Your task to perform on an android device: Open eBay Image 0: 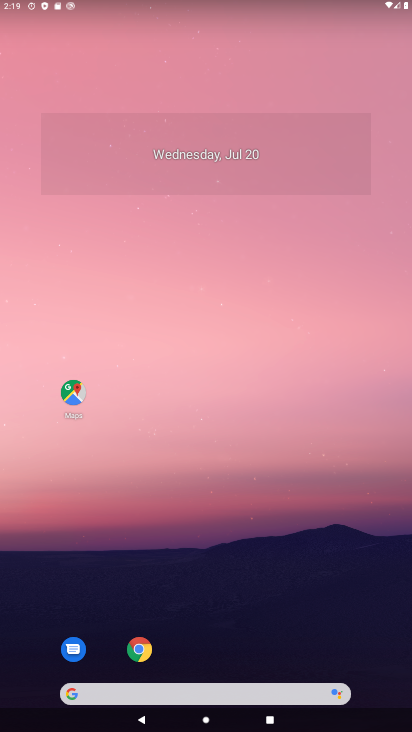
Step 0: click (155, 694)
Your task to perform on an android device: Open eBay Image 1: 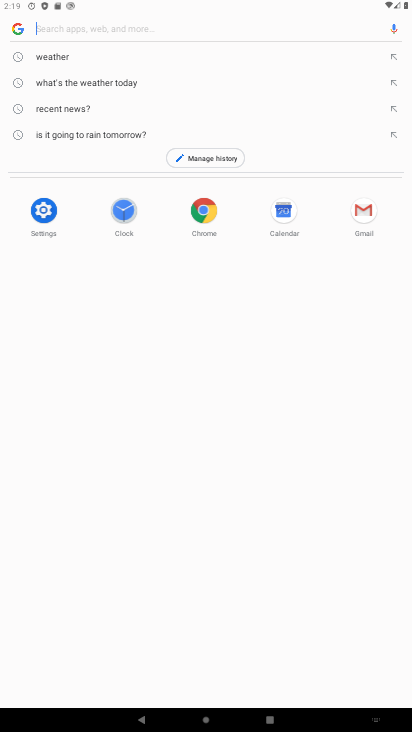
Step 1: click (38, 29)
Your task to perform on an android device: Open eBay Image 2: 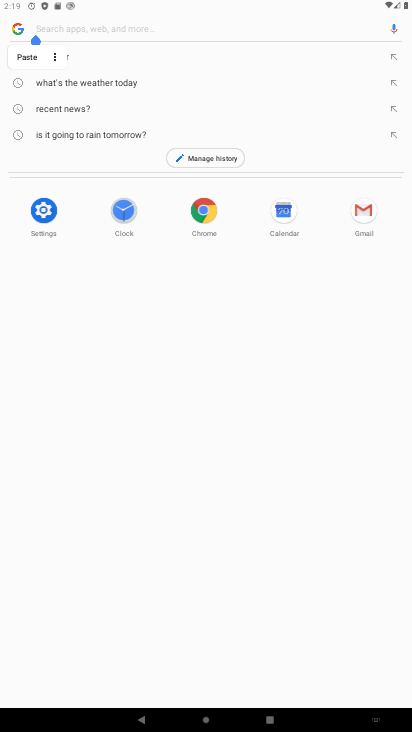
Step 2: type "eBay"
Your task to perform on an android device: Open eBay Image 3: 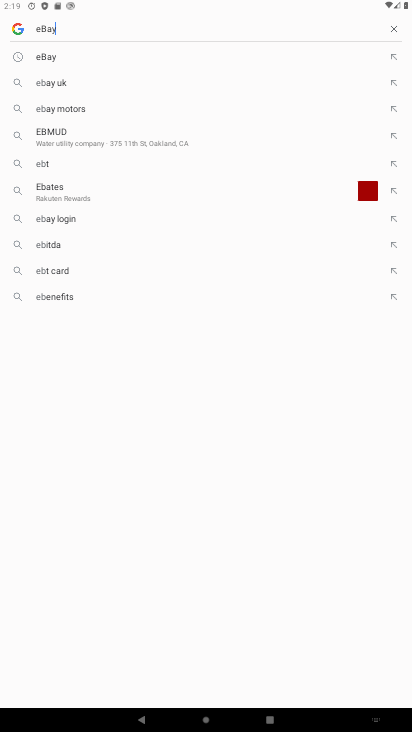
Step 3: press enter
Your task to perform on an android device: Open eBay Image 4: 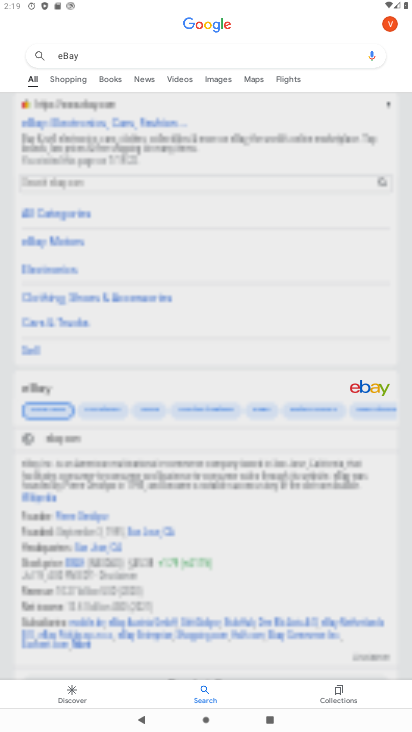
Step 4: task complete